Your task to perform on an android device: turn off notifications in google photos Image 0: 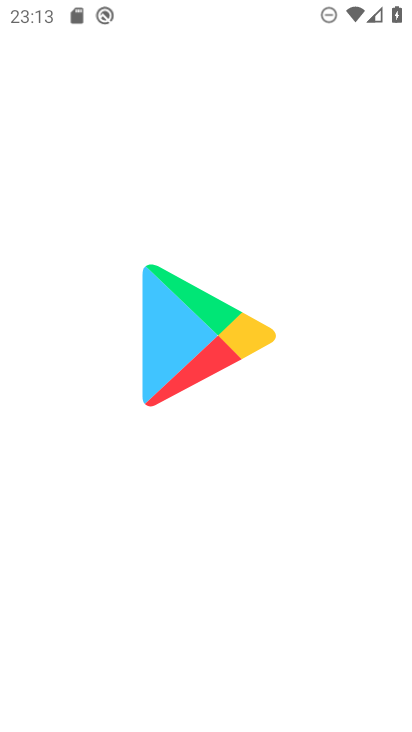
Step 0: press home button
Your task to perform on an android device: turn off notifications in google photos Image 1: 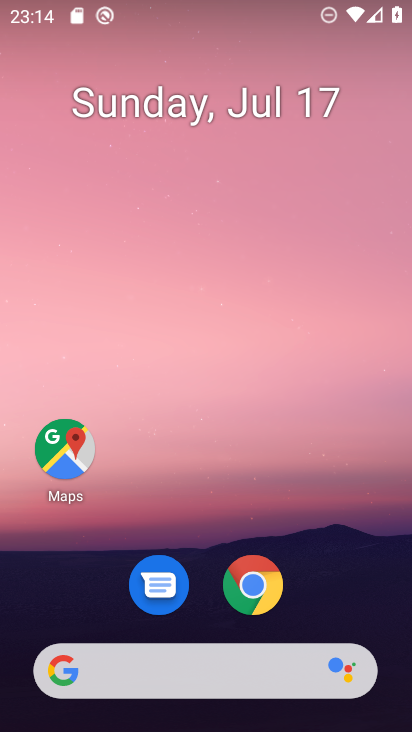
Step 1: drag from (240, 677) to (354, 76)
Your task to perform on an android device: turn off notifications in google photos Image 2: 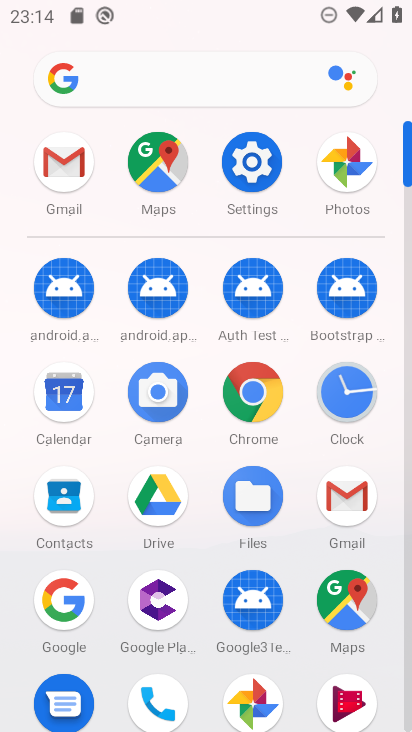
Step 2: click (251, 699)
Your task to perform on an android device: turn off notifications in google photos Image 3: 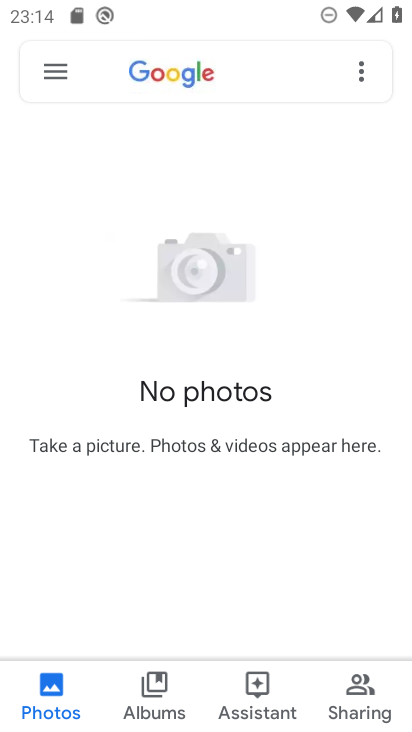
Step 3: click (47, 64)
Your task to perform on an android device: turn off notifications in google photos Image 4: 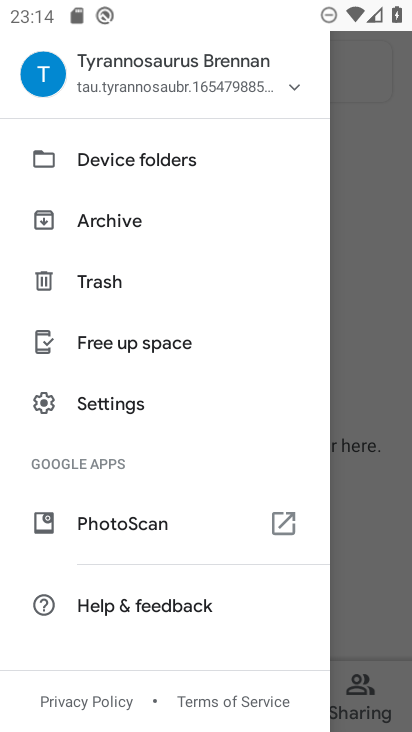
Step 4: click (130, 398)
Your task to perform on an android device: turn off notifications in google photos Image 5: 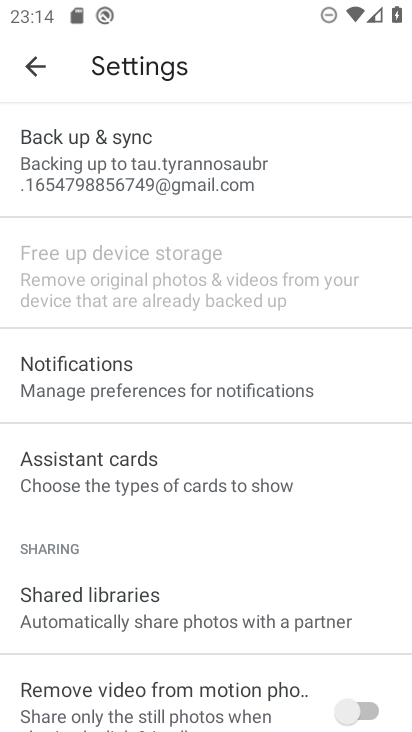
Step 5: click (137, 387)
Your task to perform on an android device: turn off notifications in google photos Image 6: 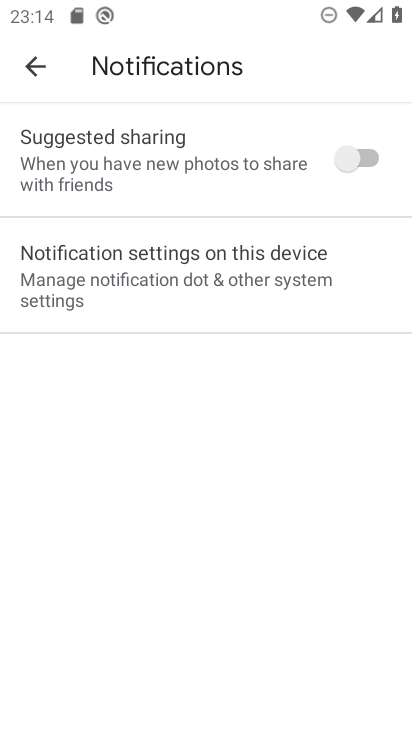
Step 6: click (284, 268)
Your task to perform on an android device: turn off notifications in google photos Image 7: 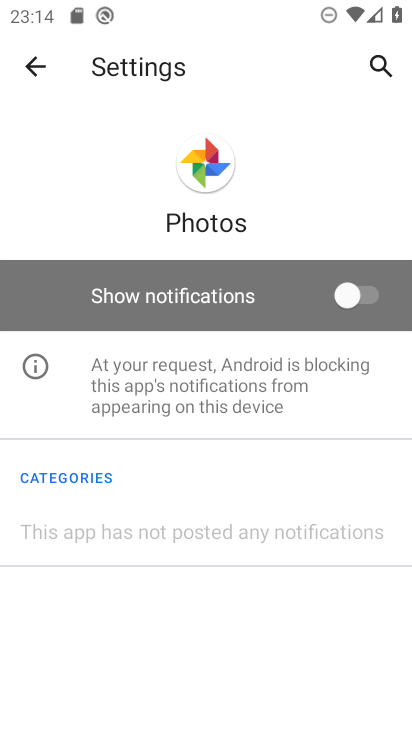
Step 7: click (362, 298)
Your task to perform on an android device: turn off notifications in google photos Image 8: 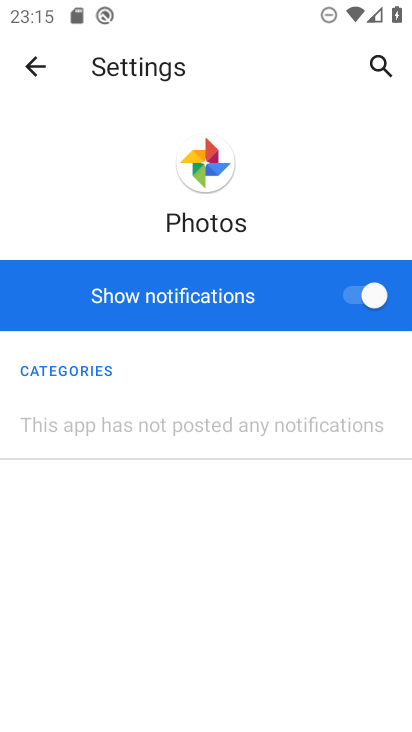
Step 8: task complete